Your task to perform on an android device: turn notification dots on Image 0: 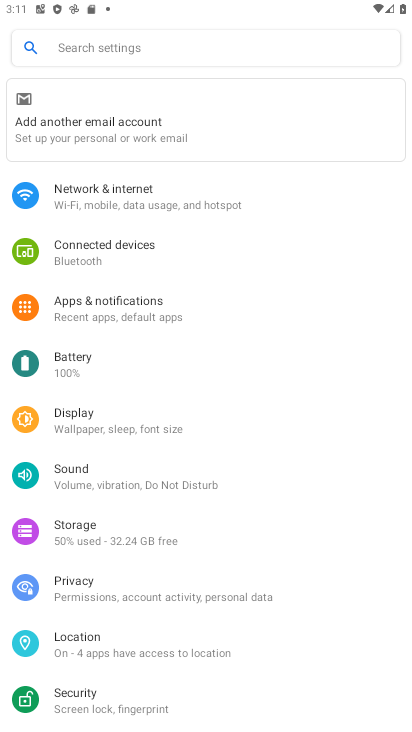
Step 0: click (218, 317)
Your task to perform on an android device: turn notification dots on Image 1: 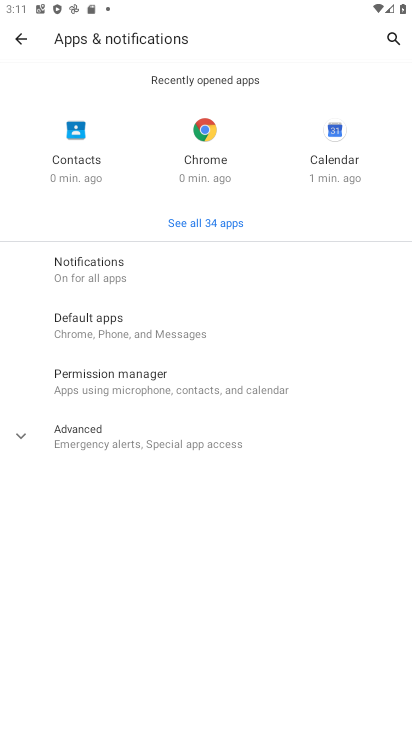
Step 1: click (175, 453)
Your task to perform on an android device: turn notification dots on Image 2: 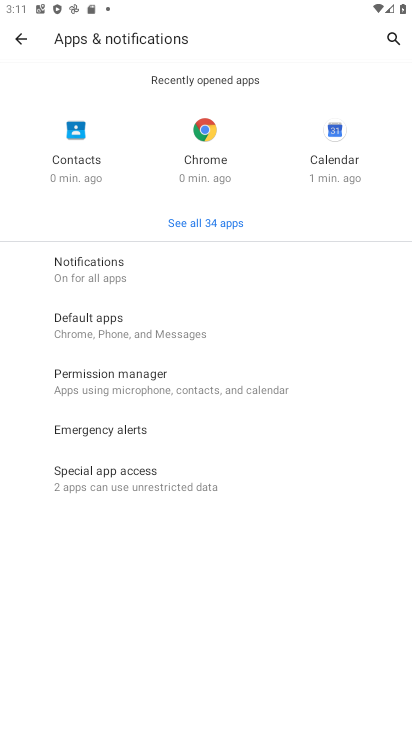
Step 2: click (185, 253)
Your task to perform on an android device: turn notification dots on Image 3: 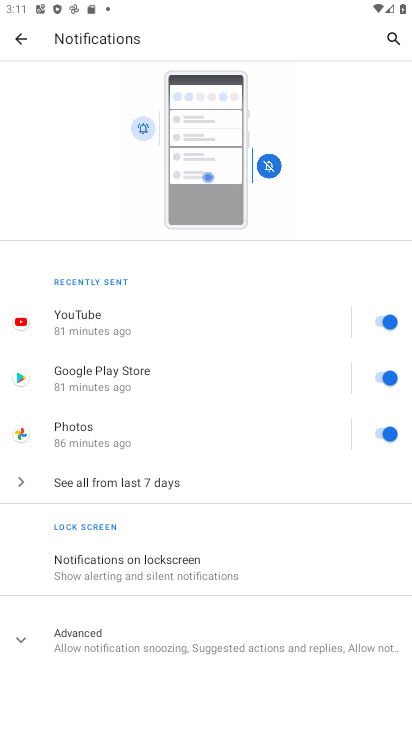
Step 3: click (298, 583)
Your task to perform on an android device: turn notification dots on Image 4: 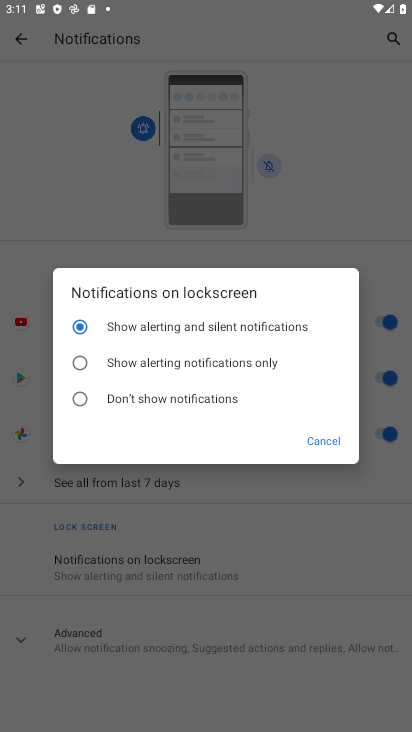
Step 4: click (265, 370)
Your task to perform on an android device: turn notification dots on Image 5: 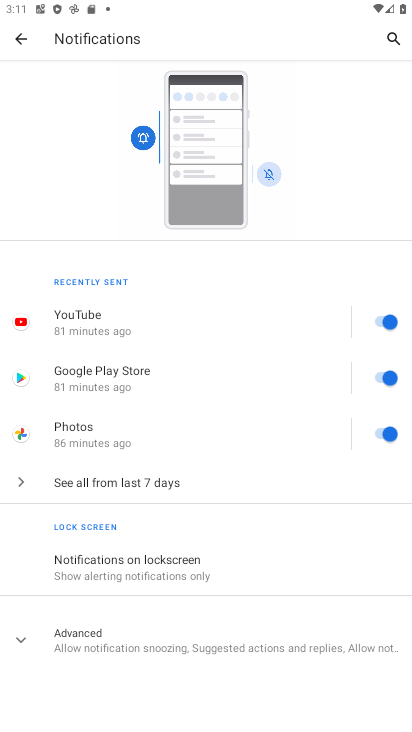
Step 5: task complete